Your task to perform on an android device: See recent photos Image 0: 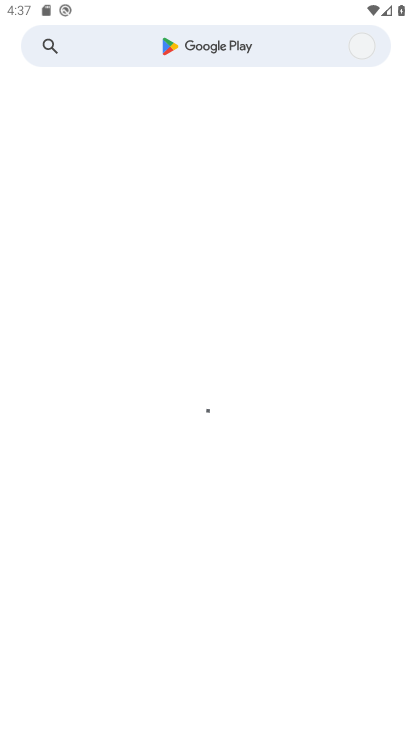
Step 0: press home button
Your task to perform on an android device: See recent photos Image 1: 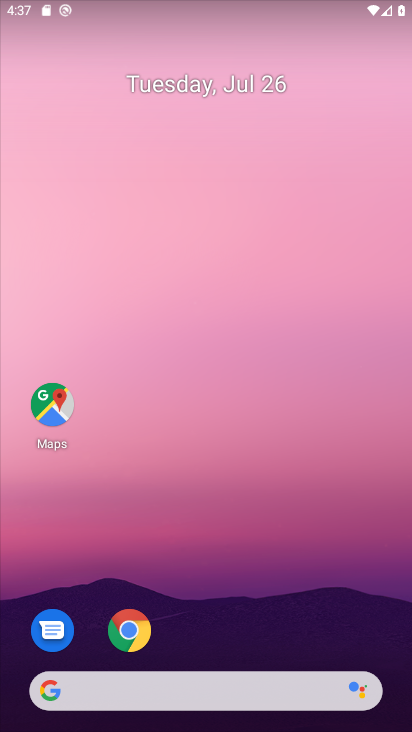
Step 1: drag from (279, 635) to (209, 196)
Your task to perform on an android device: See recent photos Image 2: 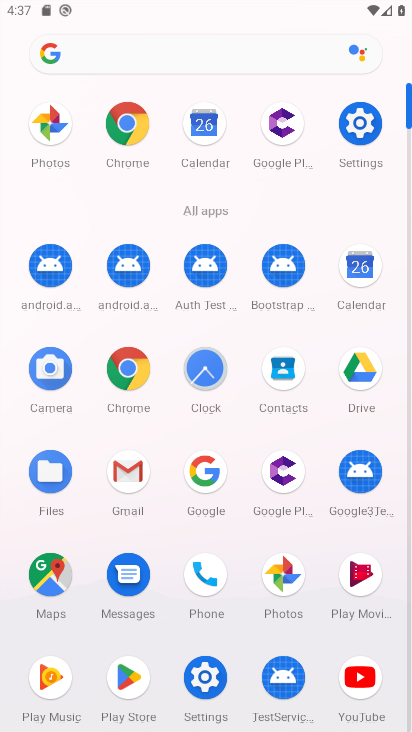
Step 2: click (41, 121)
Your task to perform on an android device: See recent photos Image 3: 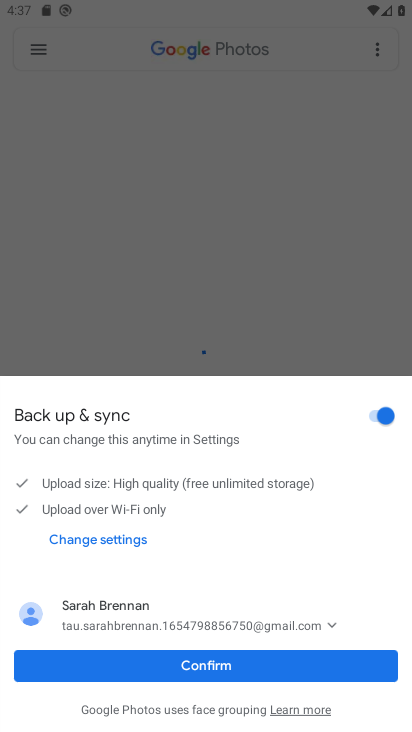
Step 3: click (337, 670)
Your task to perform on an android device: See recent photos Image 4: 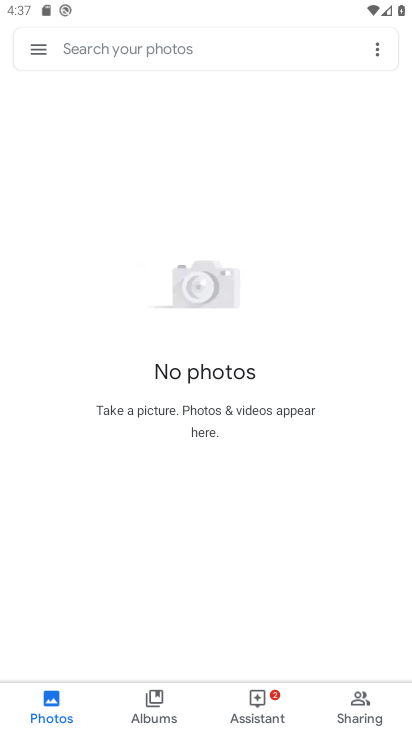
Step 4: task complete